Your task to perform on an android device: manage bookmarks in the chrome app Image 0: 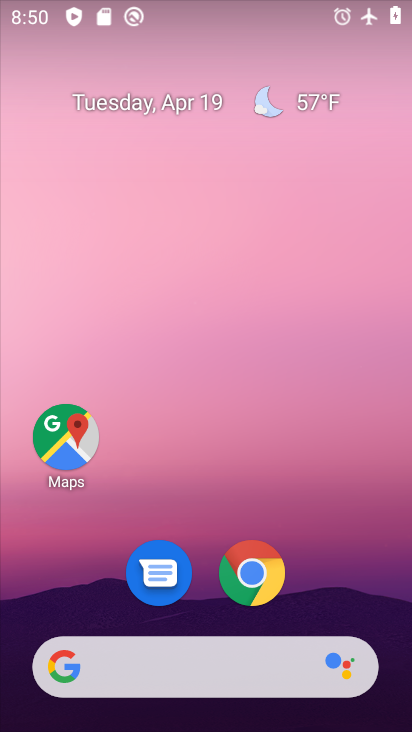
Step 0: click (257, 571)
Your task to perform on an android device: manage bookmarks in the chrome app Image 1: 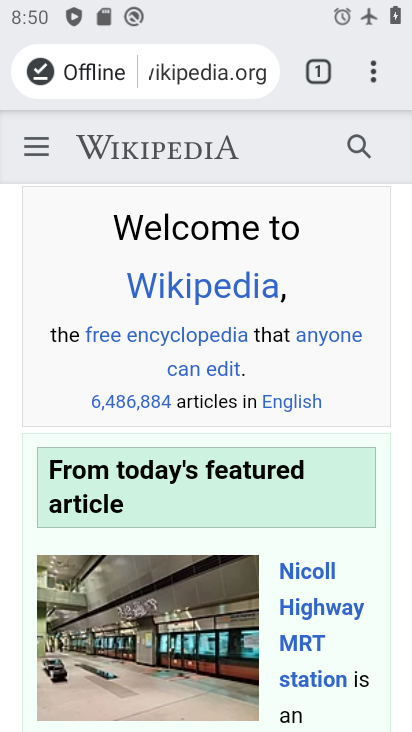
Step 1: click (371, 72)
Your task to perform on an android device: manage bookmarks in the chrome app Image 2: 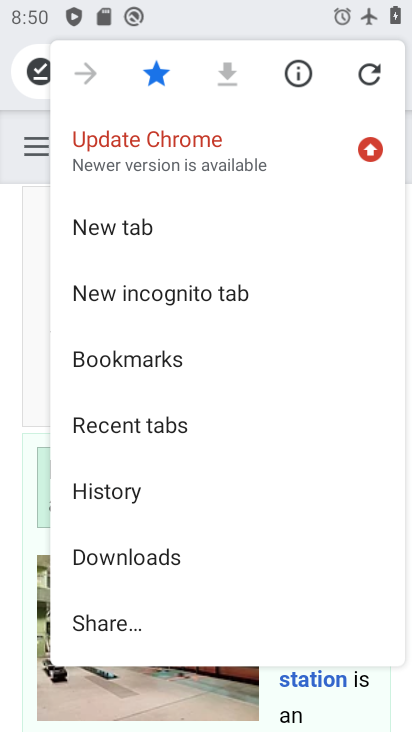
Step 2: click (163, 355)
Your task to perform on an android device: manage bookmarks in the chrome app Image 3: 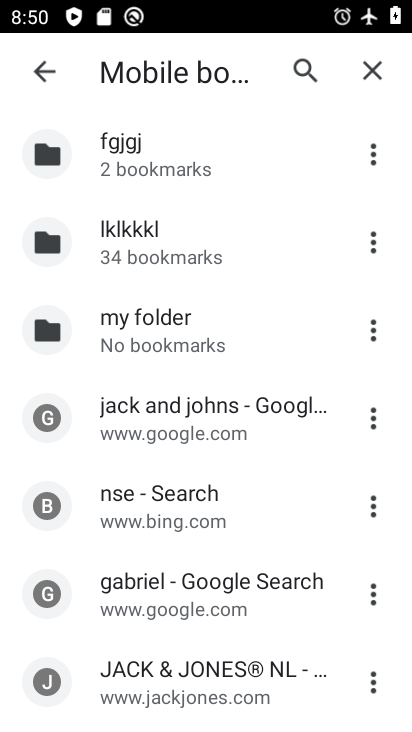
Step 3: click (373, 412)
Your task to perform on an android device: manage bookmarks in the chrome app Image 4: 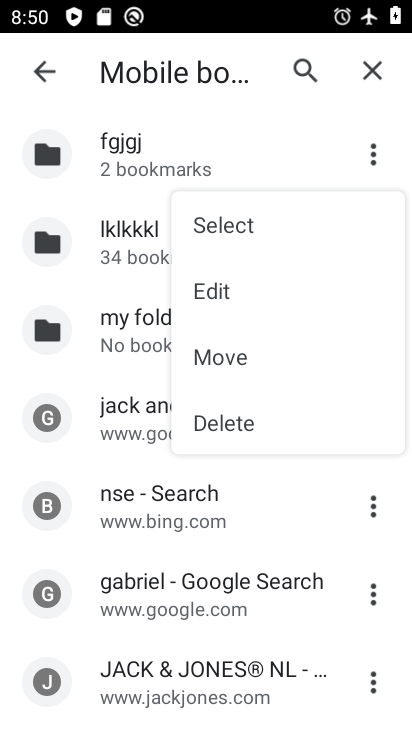
Step 4: click (224, 227)
Your task to perform on an android device: manage bookmarks in the chrome app Image 5: 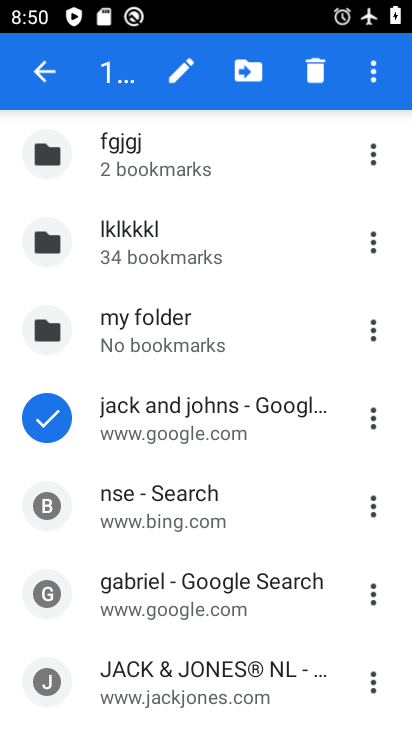
Step 5: click (47, 596)
Your task to perform on an android device: manage bookmarks in the chrome app Image 6: 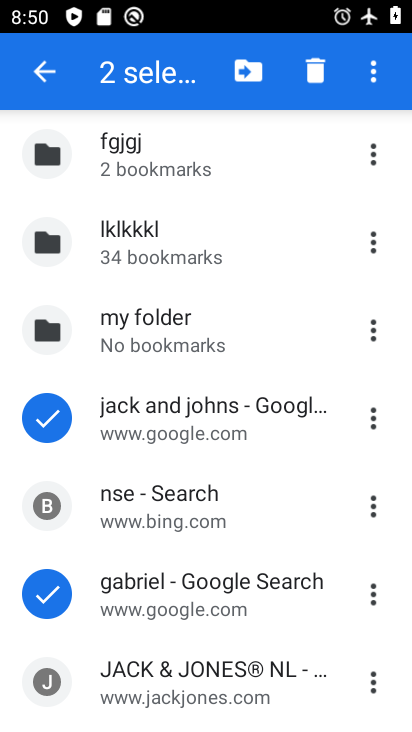
Step 6: click (49, 684)
Your task to perform on an android device: manage bookmarks in the chrome app Image 7: 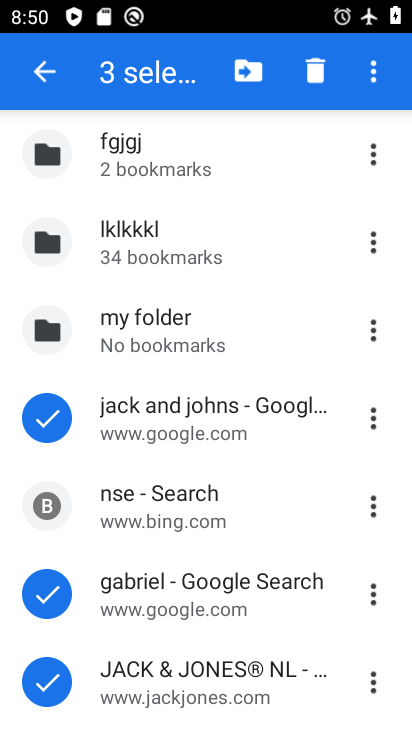
Step 7: click (46, 500)
Your task to perform on an android device: manage bookmarks in the chrome app Image 8: 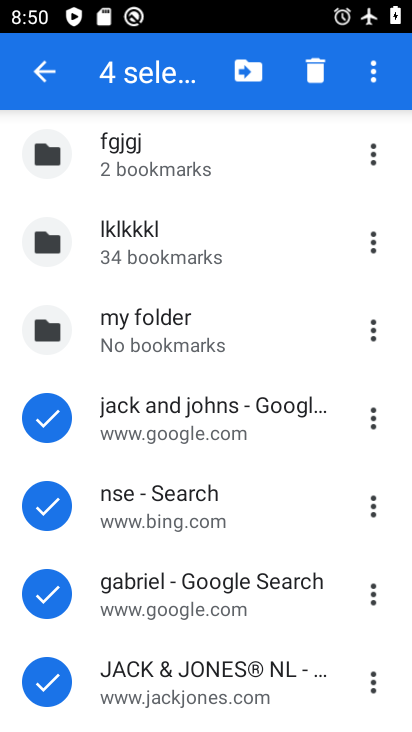
Step 8: click (306, 63)
Your task to perform on an android device: manage bookmarks in the chrome app Image 9: 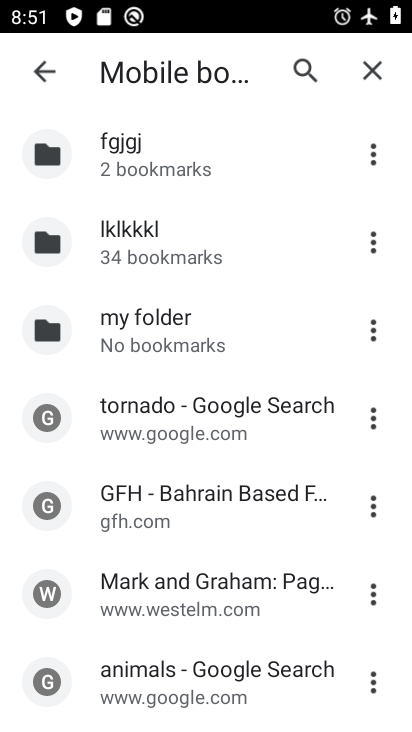
Step 9: task complete